Your task to perform on an android device: Search for pizza restaurants on Maps Image 0: 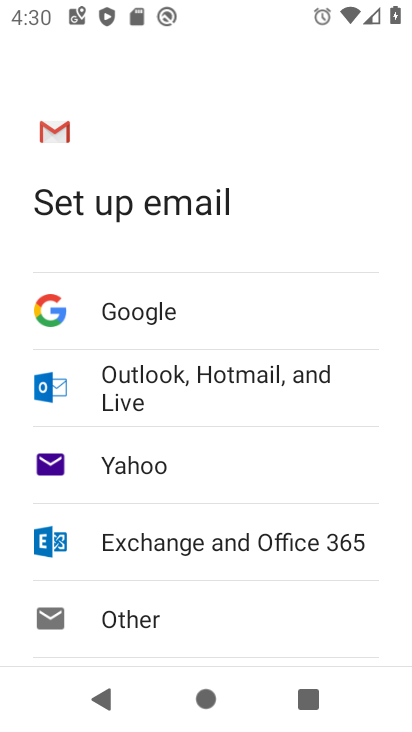
Step 0: press home button
Your task to perform on an android device: Search for pizza restaurants on Maps Image 1: 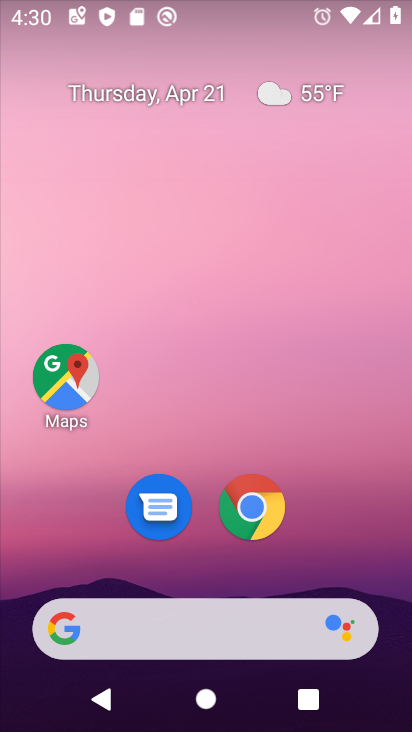
Step 1: click (72, 375)
Your task to perform on an android device: Search for pizza restaurants on Maps Image 2: 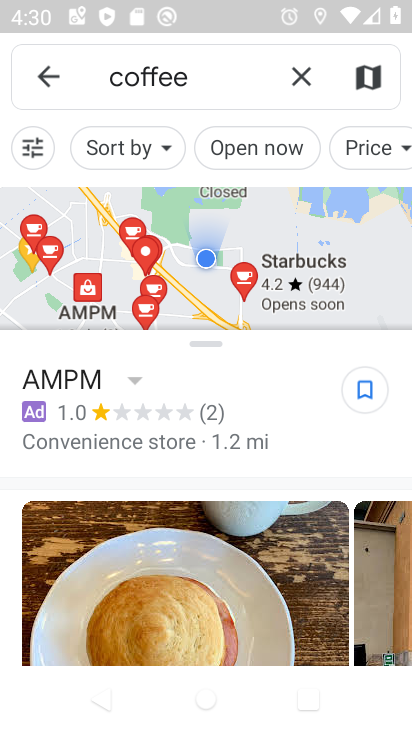
Step 2: click (290, 82)
Your task to perform on an android device: Search for pizza restaurants on Maps Image 3: 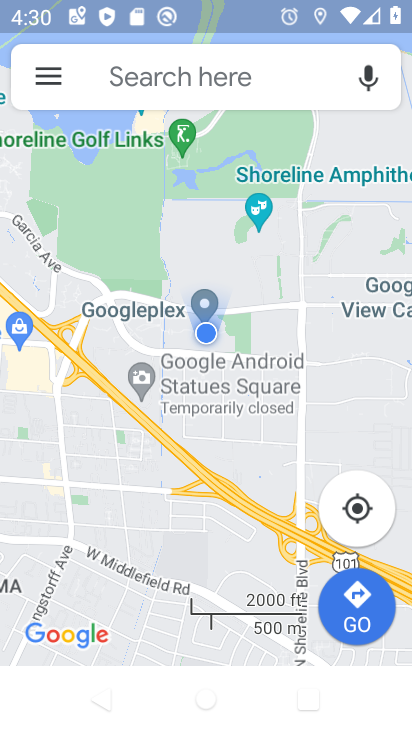
Step 3: click (290, 81)
Your task to perform on an android device: Search for pizza restaurants on Maps Image 4: 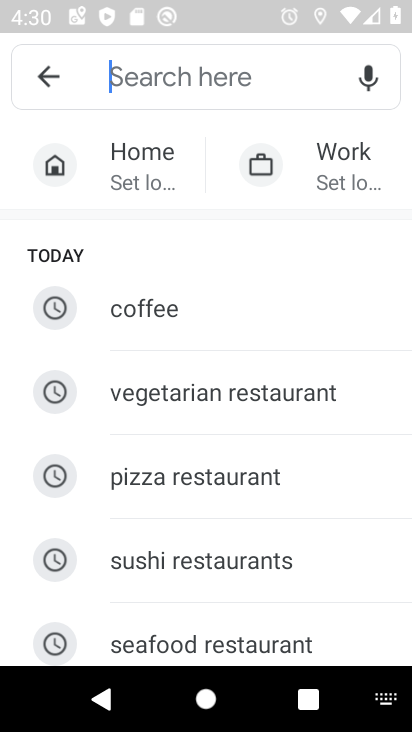
Step 4: click (244, 469)
Your task to perform on an android device: Search for pizza restaurants on Maps Image 5: 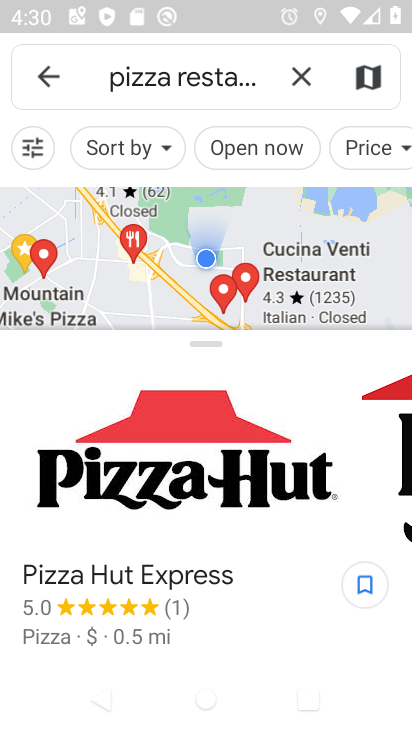
Step 5: task complete